Your task to perform on an android device: Search for "bose soundlink mini" on target.com, select the first entry, add it to the cart, then select checkout. Image 0: 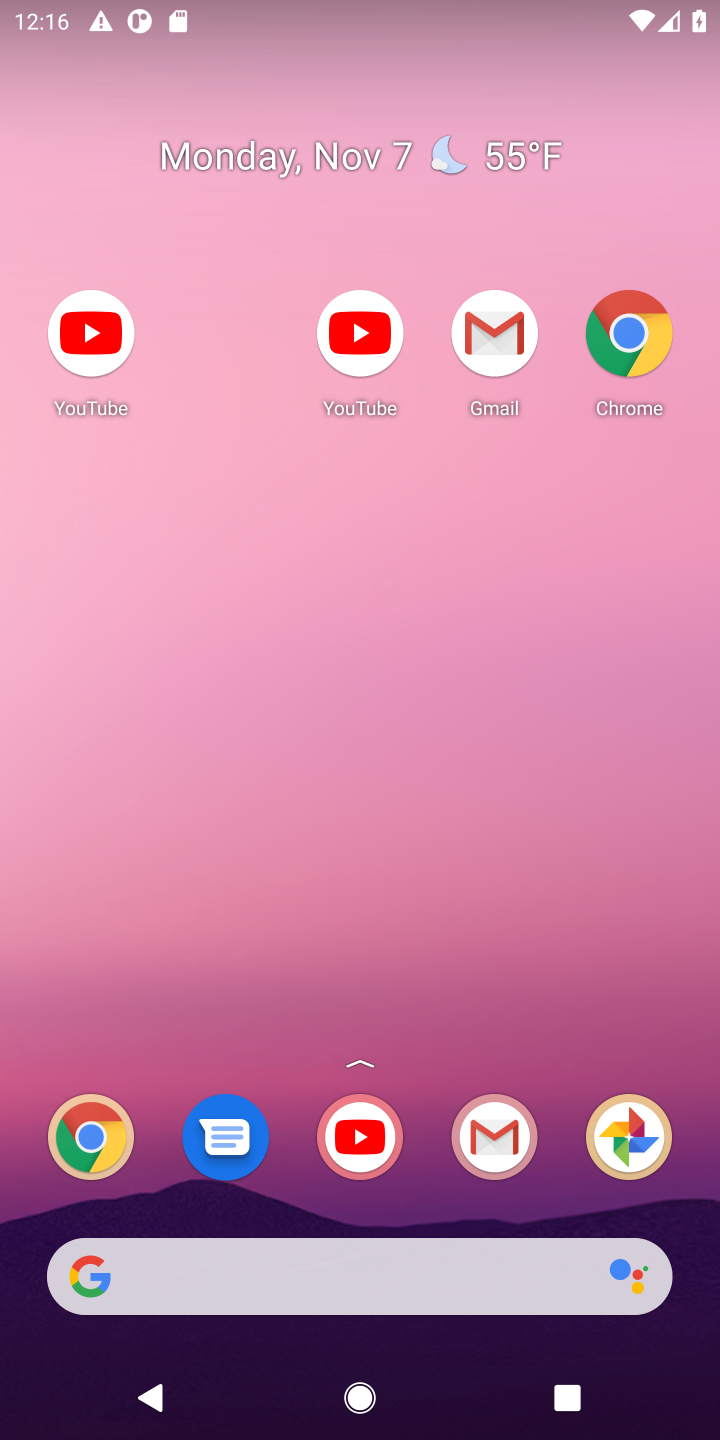
Step 0: drag from (413, 1157) to (441, 14)
Your task to perform on an android device: Search for "bose soundlink mini" on target.com, select the first entry, add it to the cart, then select checkout. Image 1: 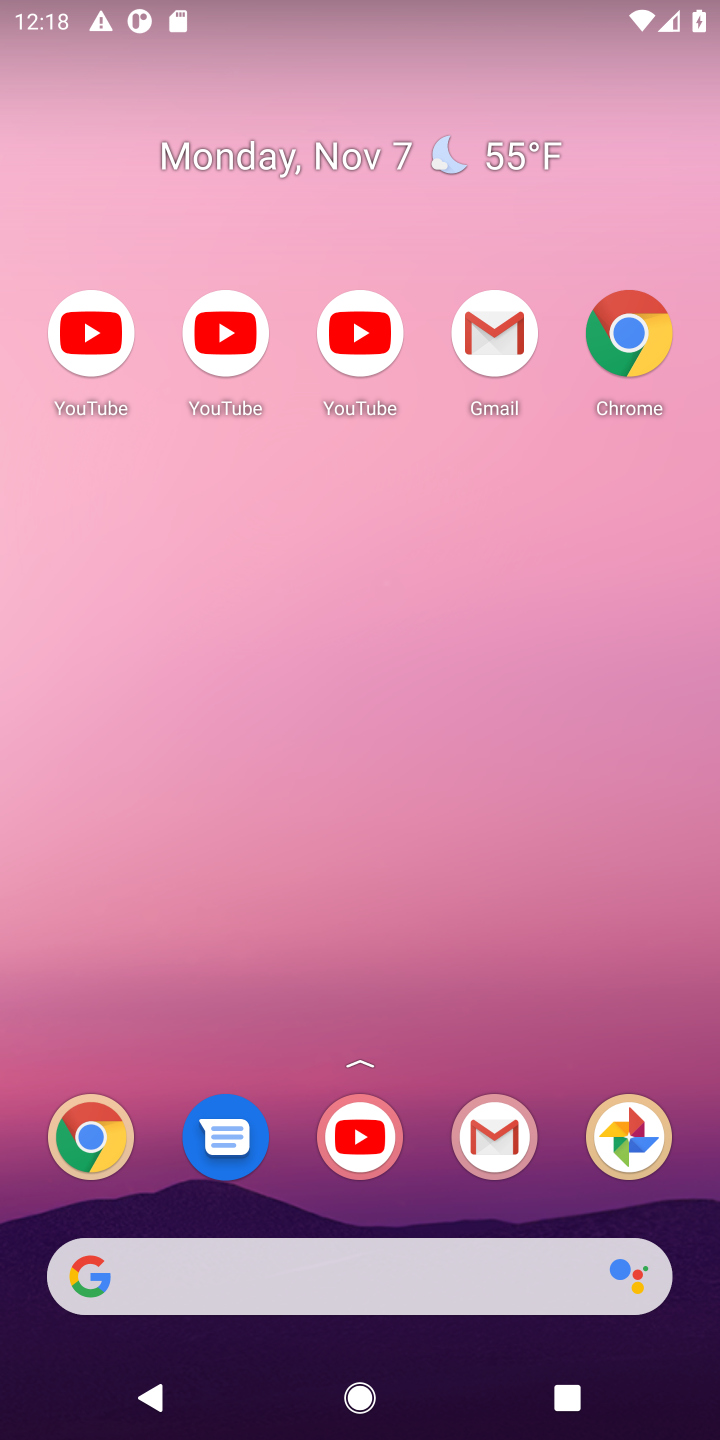
Step 1: drag from (404, 1189) to (495, 313)
Your task to perform on an android device: Search for "bose soundlink mini" on target.com, select the first entry, add it to the cart, then select checkout. Image 2: 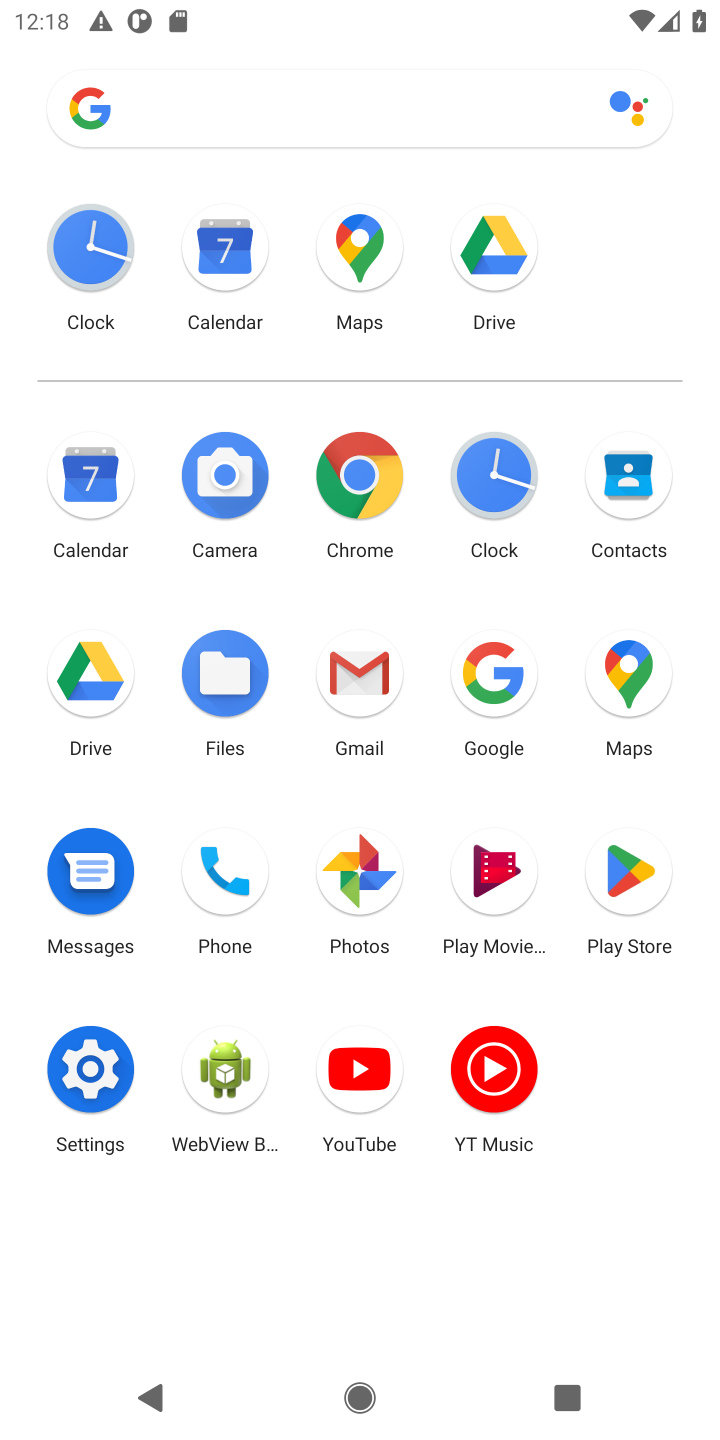
Step 2: click (347, 474)
Your task to perform on an android device: Search for "bose soundlink mini" on target.com, select the first entry, add it to the cart, then select checkout. Image 3: 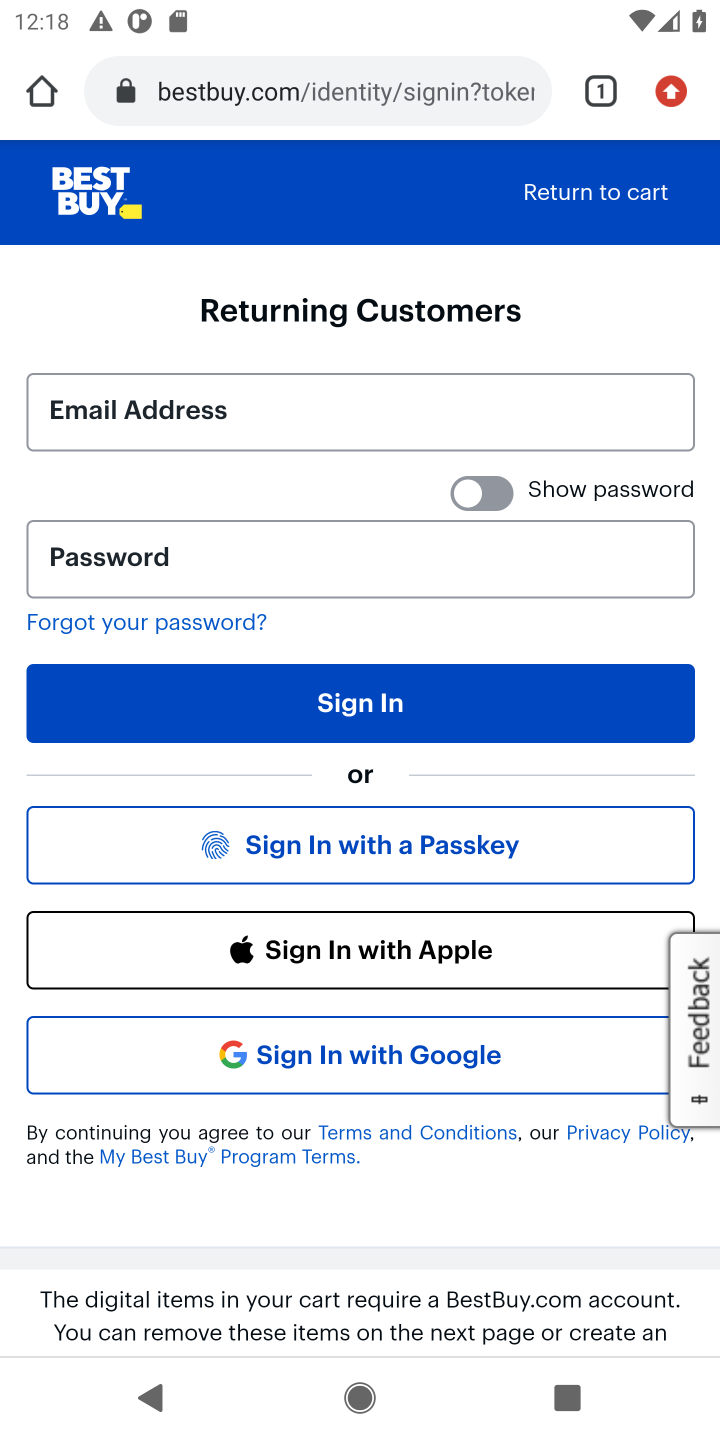
Step 3: click (219, 87)
Your task to perform on an android device: Search for "bose soundlink mini" on target.com, select the first entry, add it to the cart, then select checkout. Image 4: 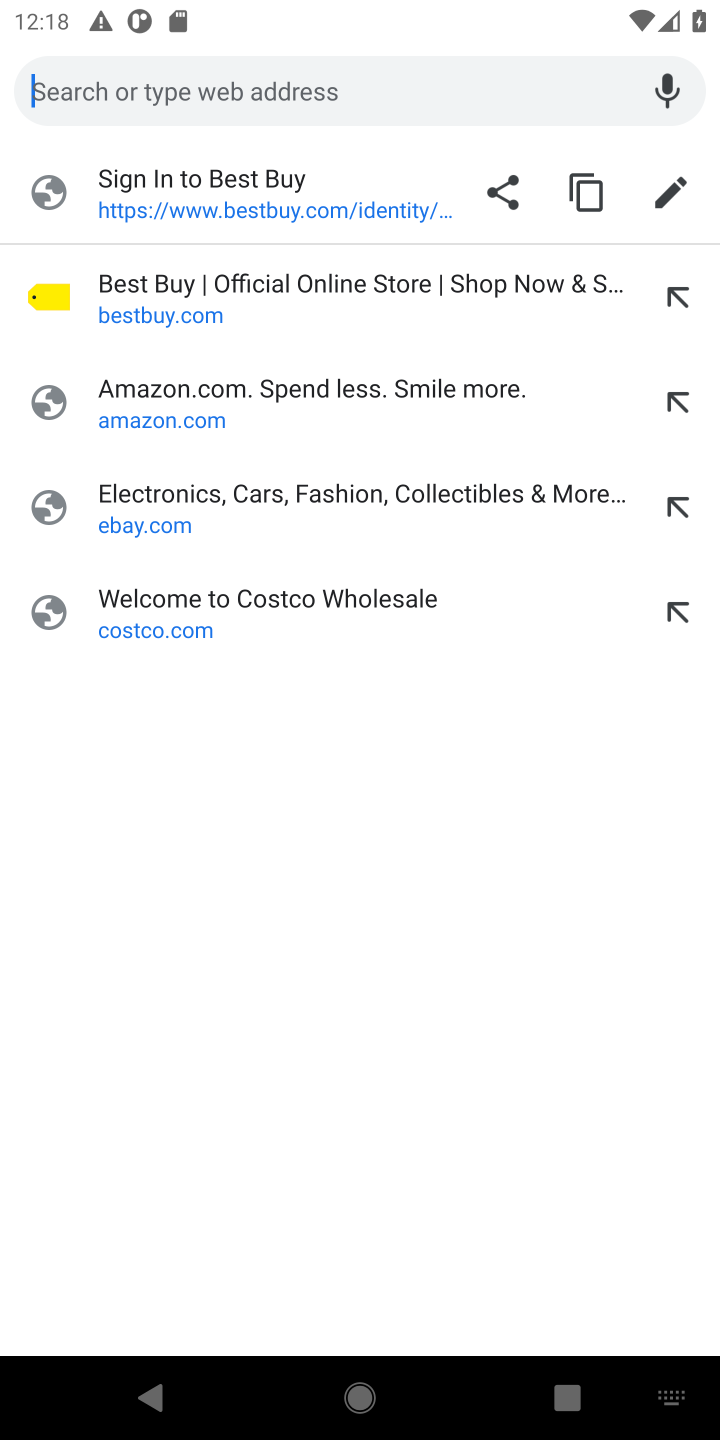
Step 4: type "target.com"
Your task to perform on an android device: Search for "bose soundlink mini" on target.com, select the first entry, add it to the cart, then select checkout. Image 5: 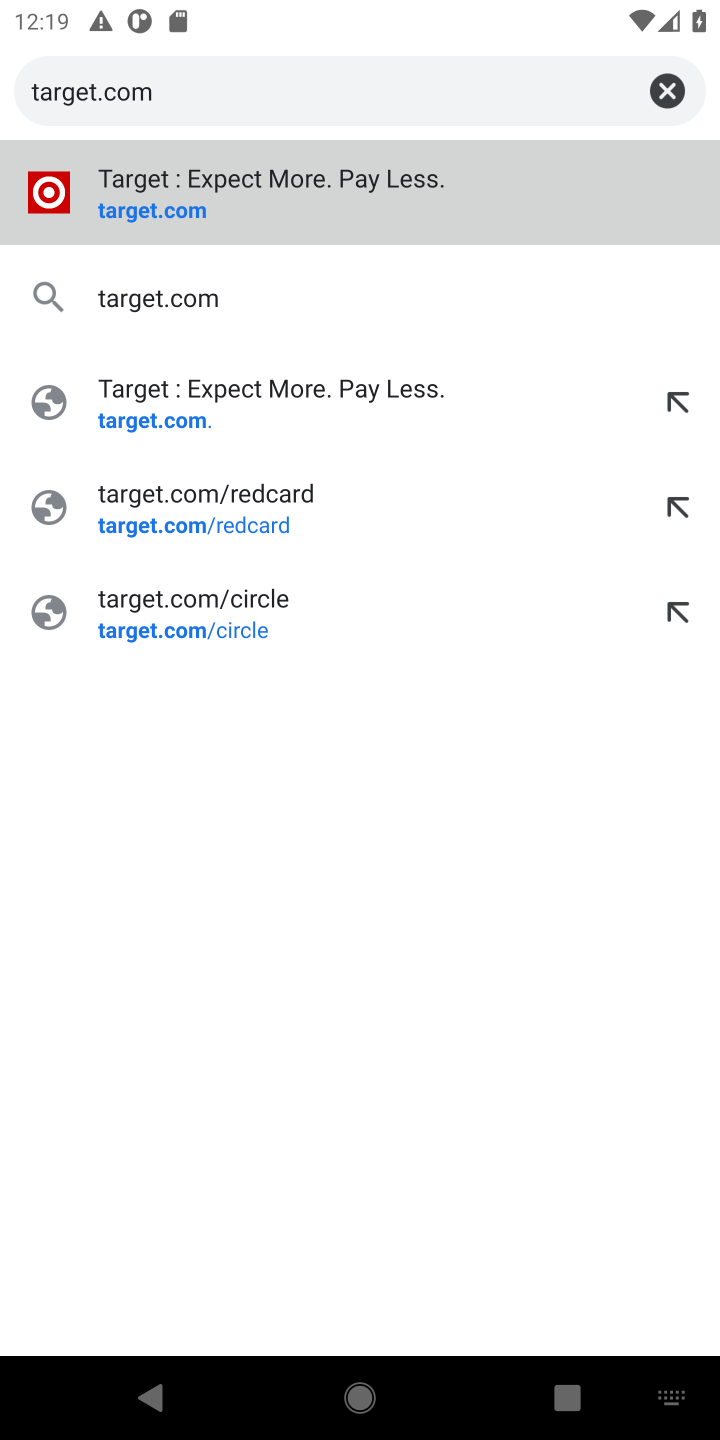
Step 5: press enter
Your task to perform on an android device: Search for "bose soundlink mini" on target.com, select the first entry, add it to the cart, then select checkout. Image 6: 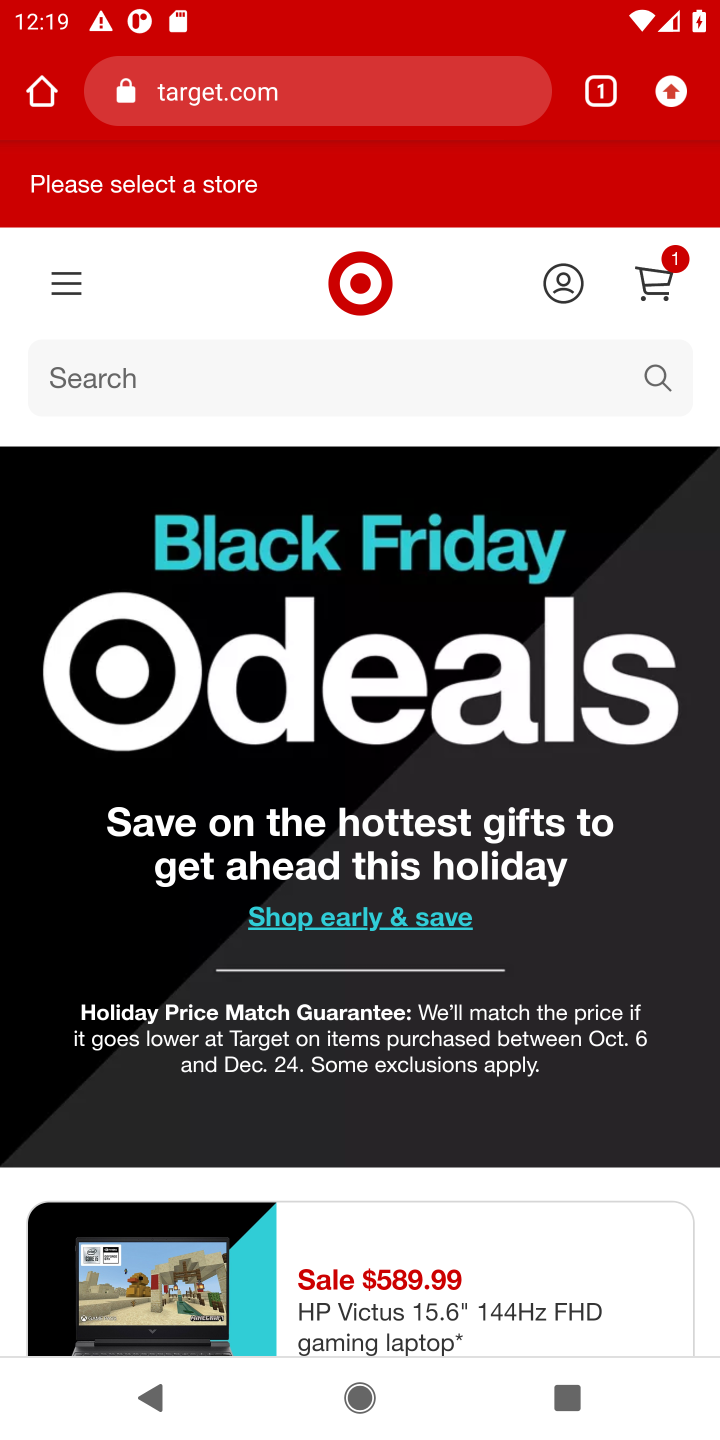
Step 6: click (365, 398)
Your task to perform on an android device: Search for "bose soundlink mini" on target.com, select the first entry, add it to the cart, then select checkout. Image 7: 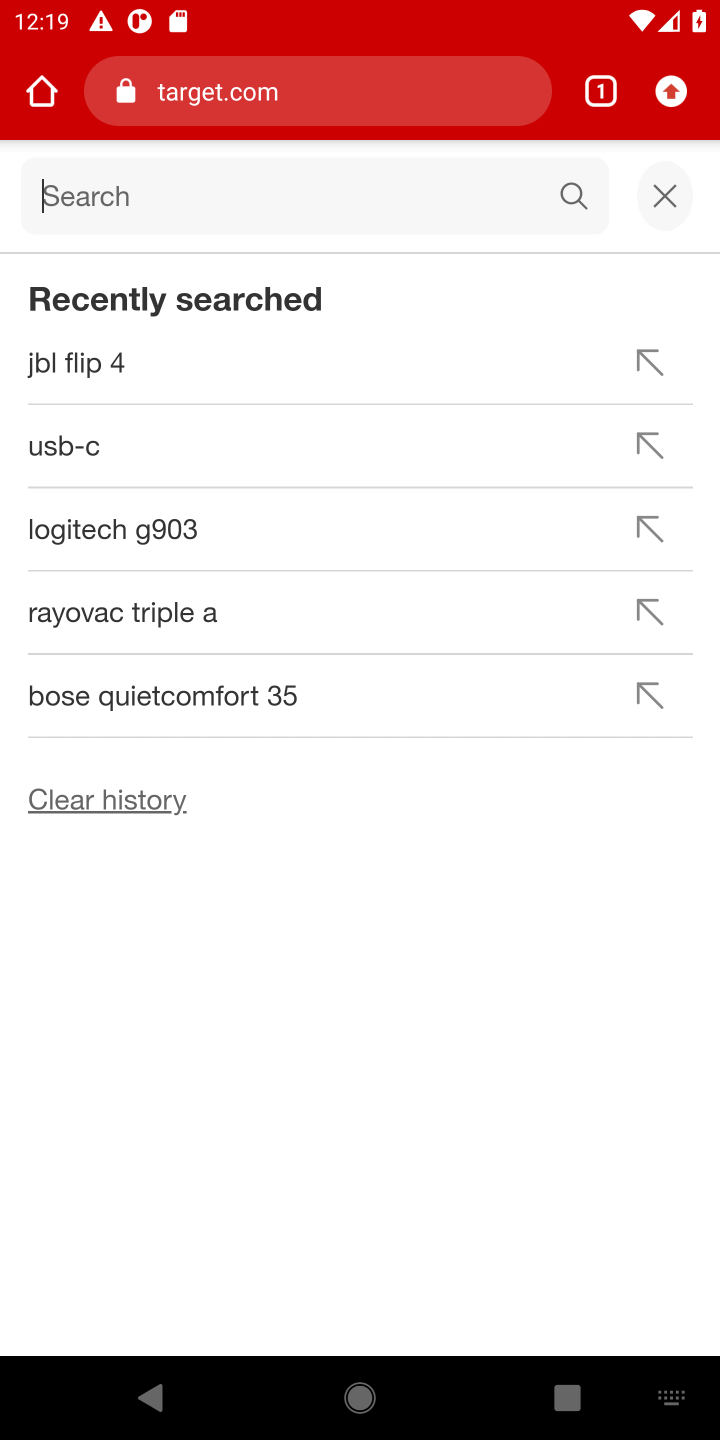
Step 7: type "bose soundlink mini"
Your task to perform on an android device: Search for "bose soundlink mini" on target.com, select the first entry, add it to the cart, then select checkout. Image 8: 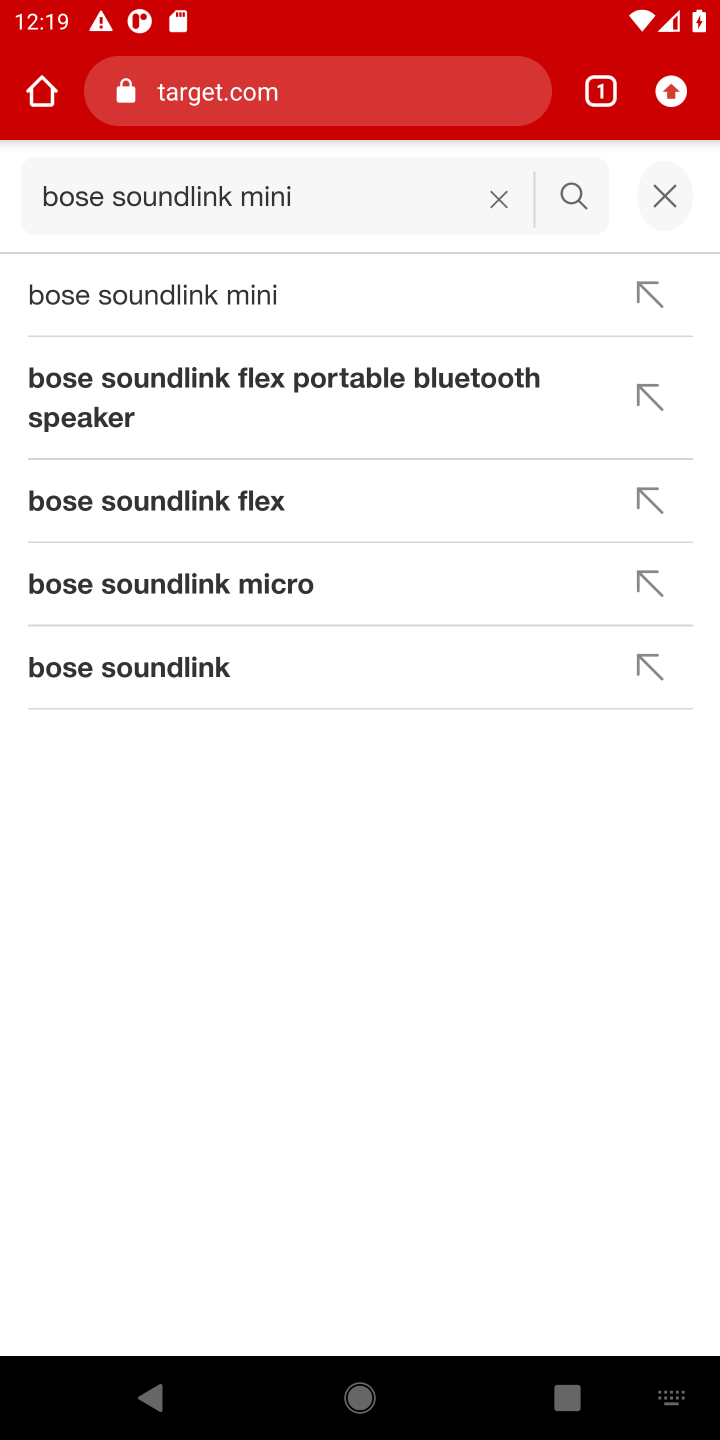
Step 8: press enter
Your task to perform on an android device: Search for "bose soundlink mini" on target.com, select the first entry, add it to the cart, then select checkout. Image 9: 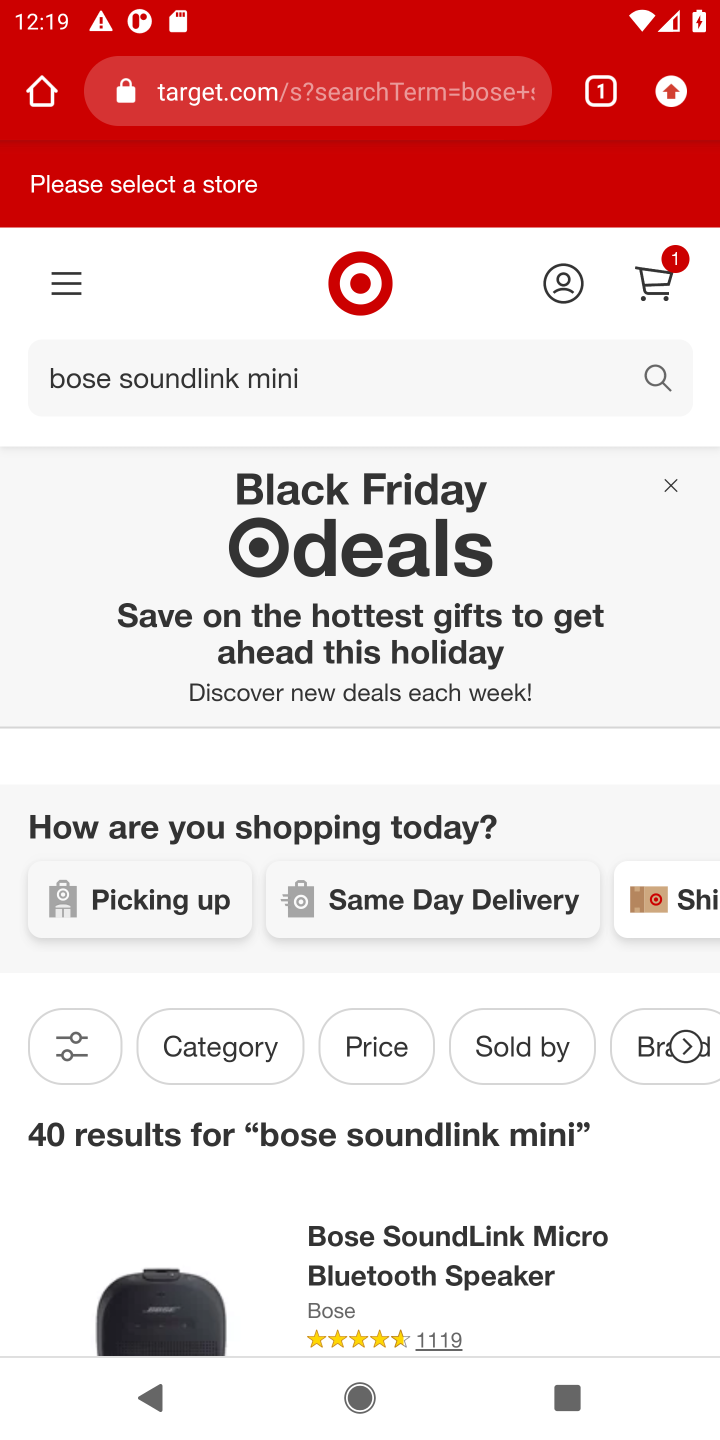
Step 9: task complete